Your task to perform on an android device: delete the emails in spam in the gmail app Image 0: 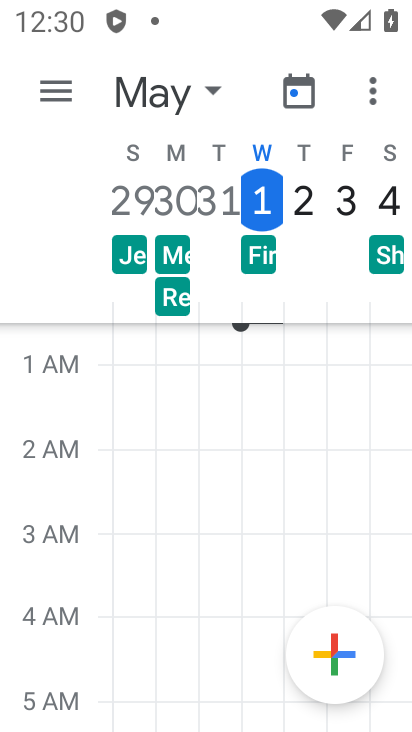
Step 0: press home button
Your task to perform on an android device: delete the emails in spam in the gmail app Image 1: 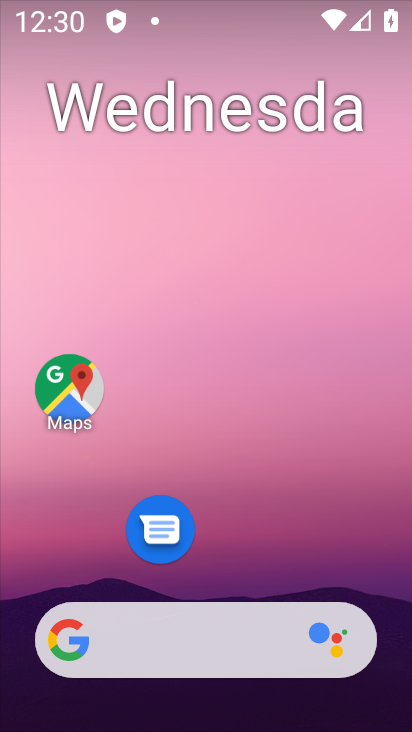
Step 1: drag from (214, 597) to (397, 399)
Your task to perform on an android device: delete the emails in spam in the gmail app Image 2: 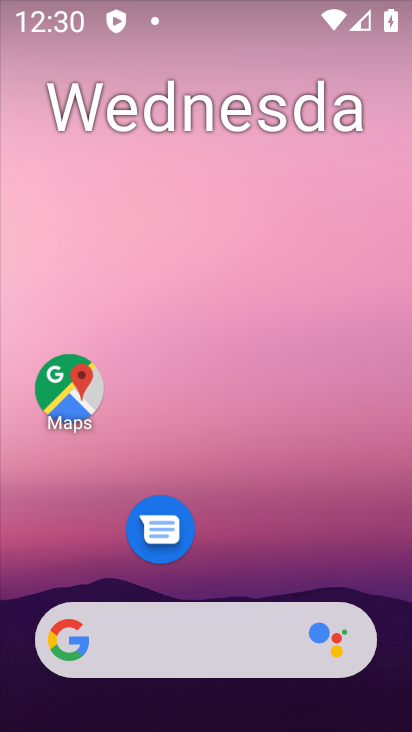
Step 2: drag from (220, 581) to (218, 12)
Your task to perform on an android device: delete the emails in spam in the gmail app Image 3: 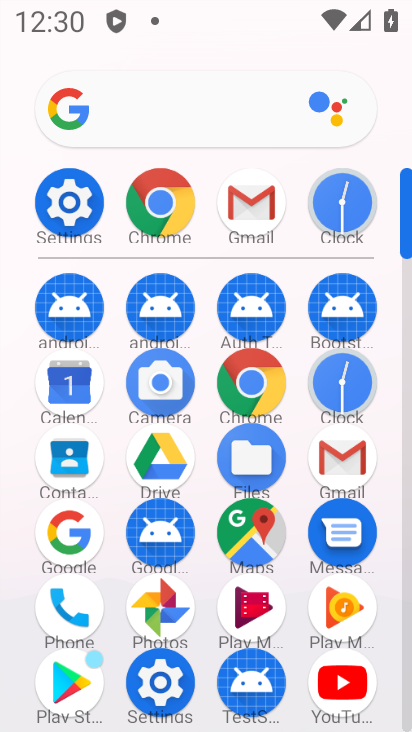
Step 3: click (348, 460)
Your task to perform on an android device: delete the emails in spam in the gmail app Image 4: 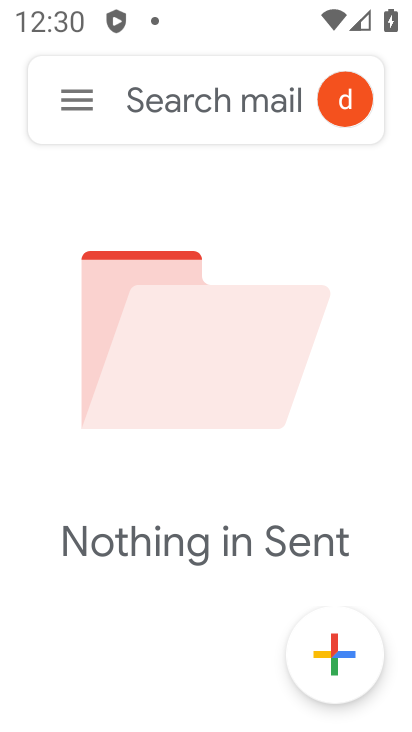
Step 4: click (61, 104)
Your task to perform on an android device: delete the emails in spam in the gmail app Image 5: 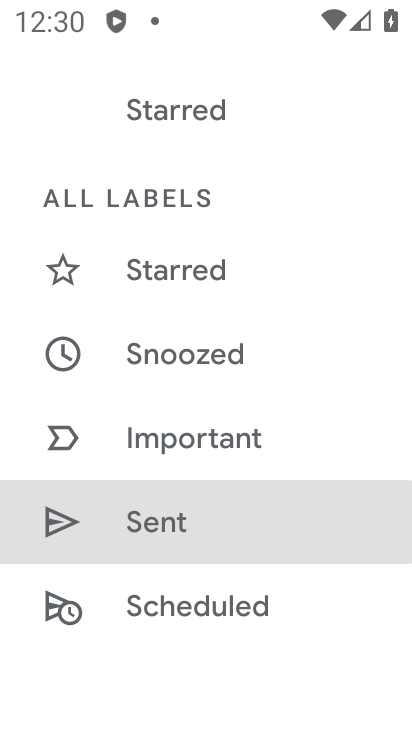
Step 5: drag from (122, 457) to (153, 30)
Your task to perform on an android device: delete the emails in spam in the gmail app Image 6: 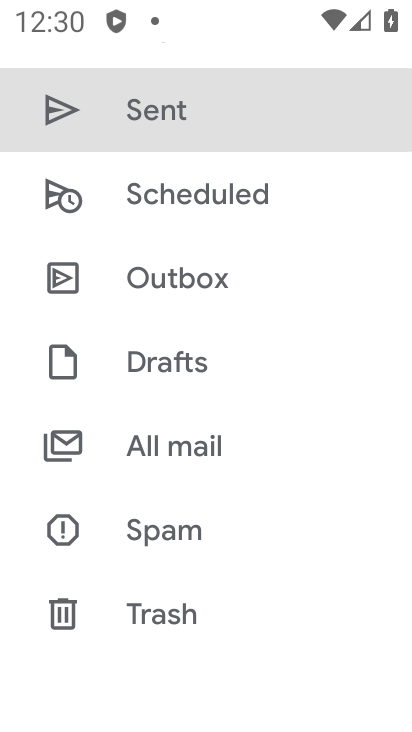
Step 6: click (174, 534)
Your task to perform on an android device: delete the emails in spam in the gmail app Image 7: 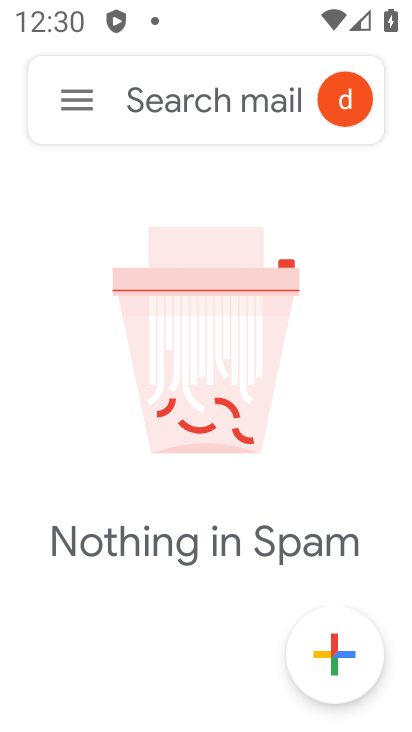
Step 7: task complete